Your task to perform on an android device: What is the news today? Image 0: 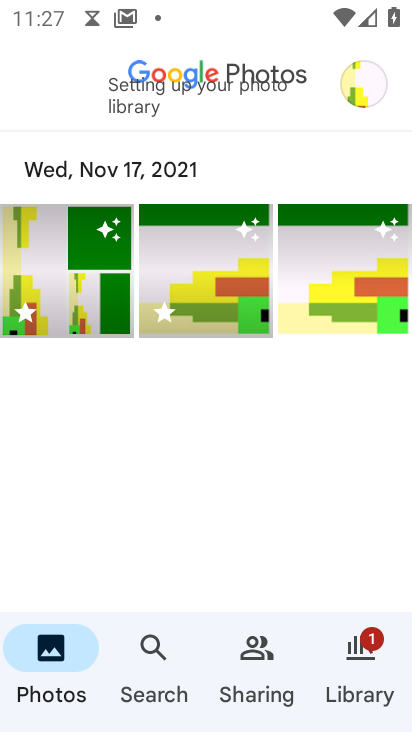
Step 0: press home button
Your task to perform on an android device: What is the news today? Image 1: 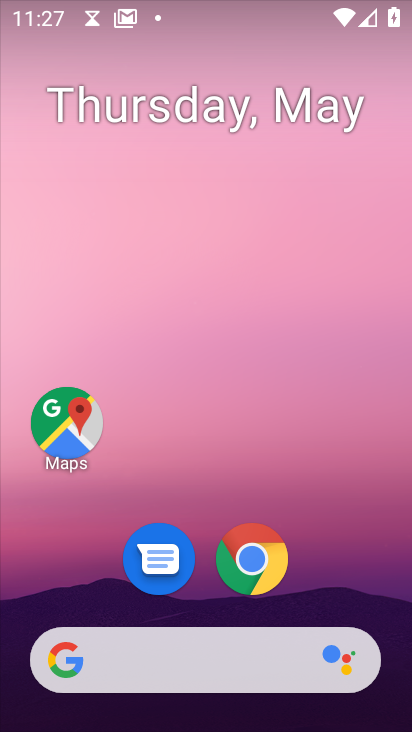
Step 1: drag from (2, 284) to (392, 183)
Your task to perform on an android device: What is the news today? Image 2: 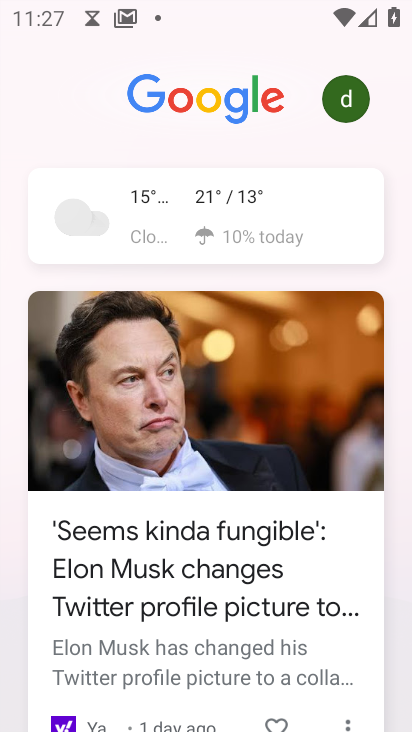
Step 2: click (115, 142)
Your task to perform on an android device: What is the news today? Image 3: 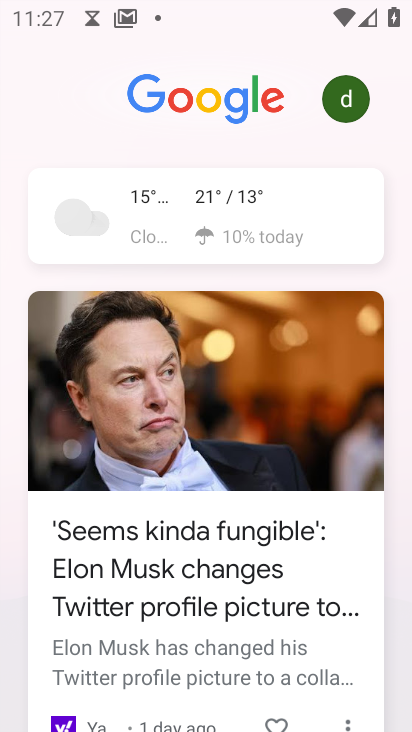
Step 3: task complete